Your task to perform on an android device: check the backup settings in the google photos Image 0: 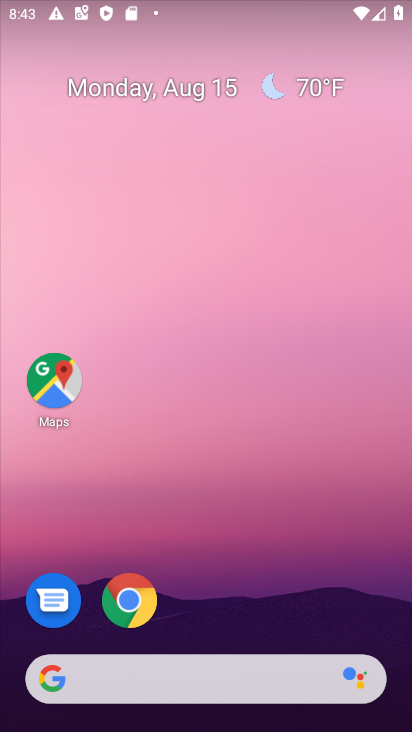
Step 0: drag from (243, 645) to (272, 0)
Your task to perform on an android device: check the backup settings in the google photos Image 1: 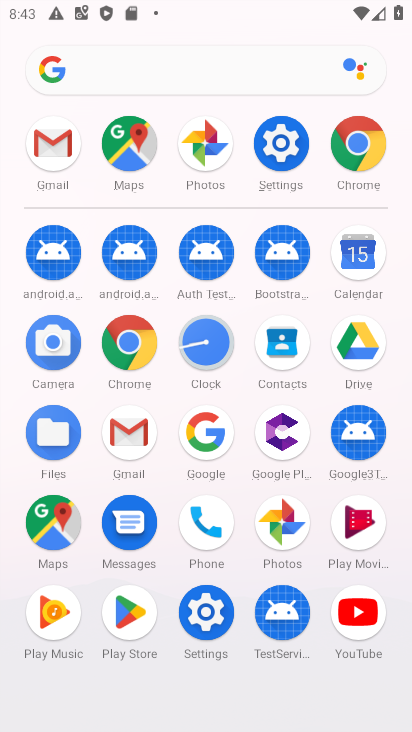
Step 1: click (275, 534)
Your task to perform on an android device: check the backup settings in the google photos Image 2: 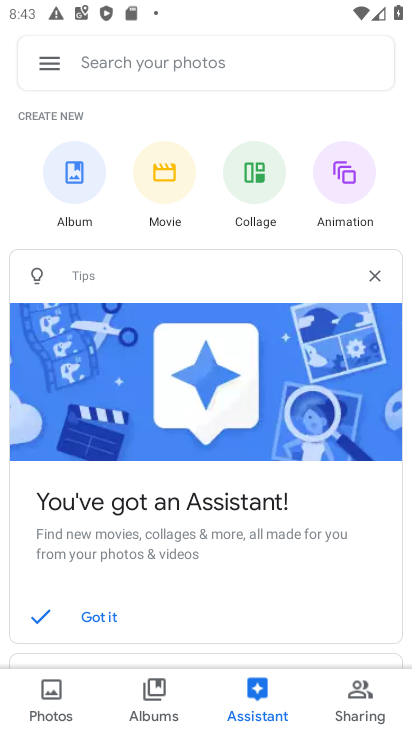
Step 2: click (54, 59)
Your task to perform on an android device: check the backup settings in the google photos Image 3: 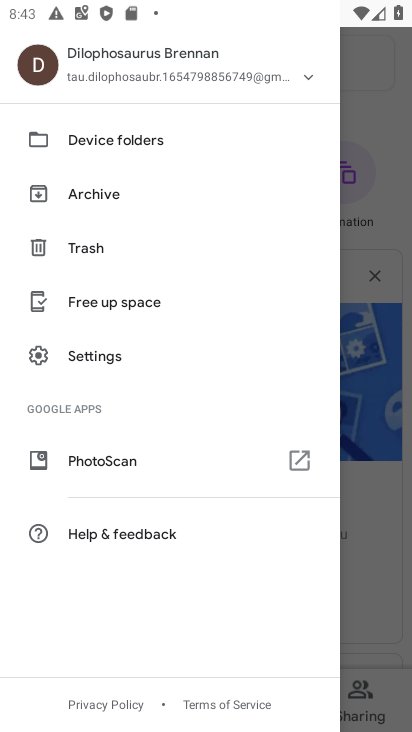
Step 3: click (96, 355)
Your task to perform on an android device: check the backup settings in the google photos Image 4: 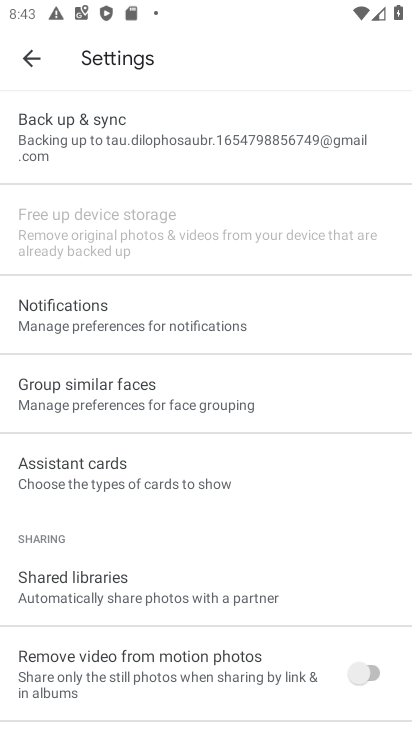
Step 4: click (77, 124)
Your task to perform on an android device: check the backup settings in the google photos Image 5: 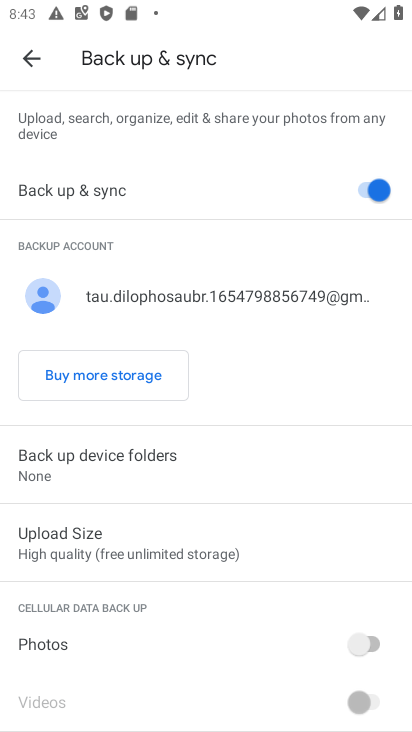
Step 5: task complete